Your task to perform on an android device: Go to accessibility settings Image 0: 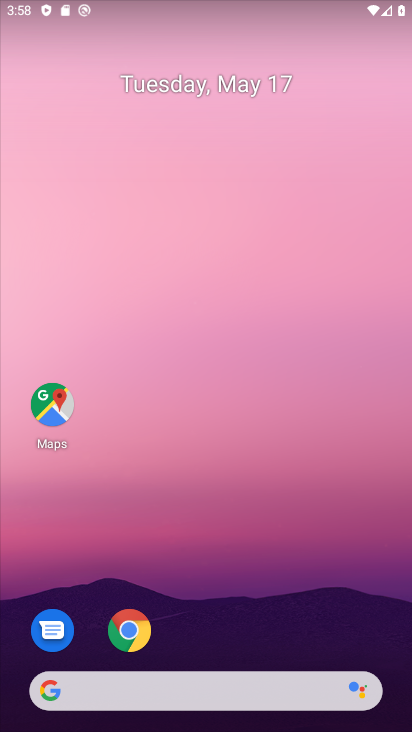
Step 0: drag from (173, 726) to (188, 220)
Your task to perform on an android device: Go to accessibility settings Image 1: 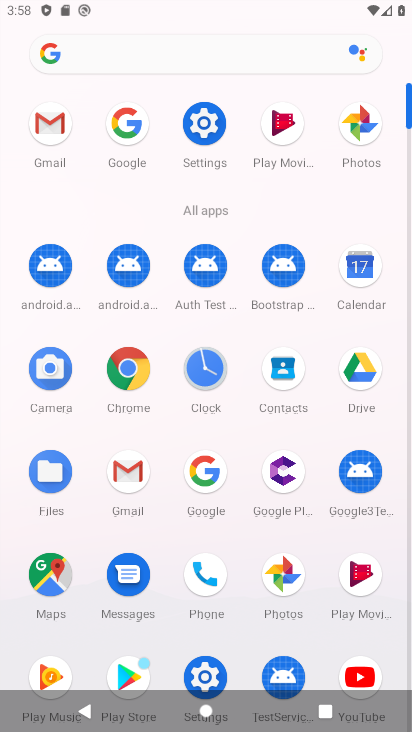
Step 1: click (203, 124)
Your task to perform on an android device: Go to accessibility settings Image 2: 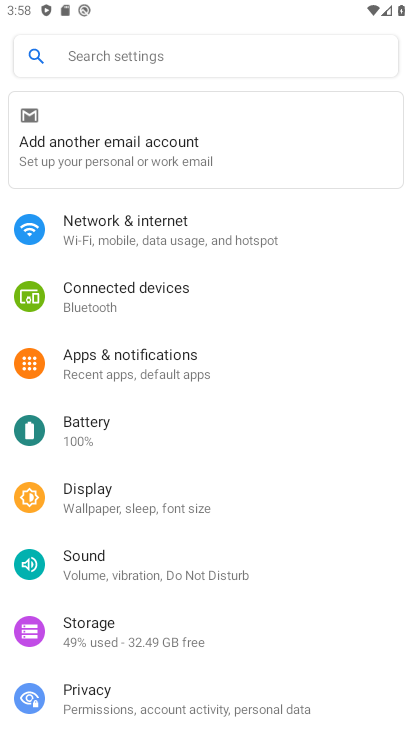
Step 2: drag from (198, 635) to (203, 222)
Your task to perform on an android device: Go to accessibility settings Image 3: 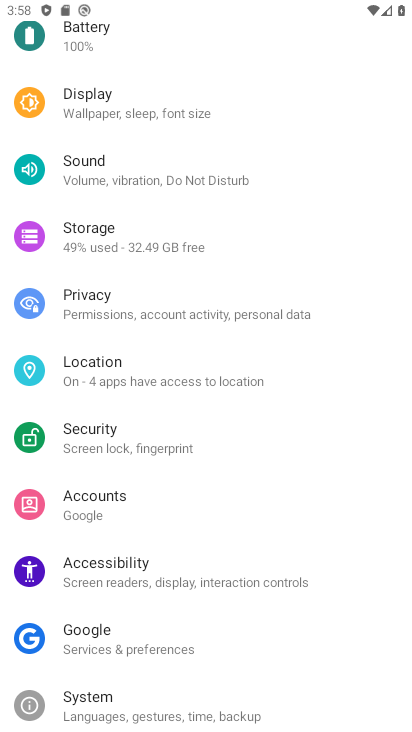
Step 3: click (124, 574)
Your task to perform on an android device: Go to accessibility settings Image 4: 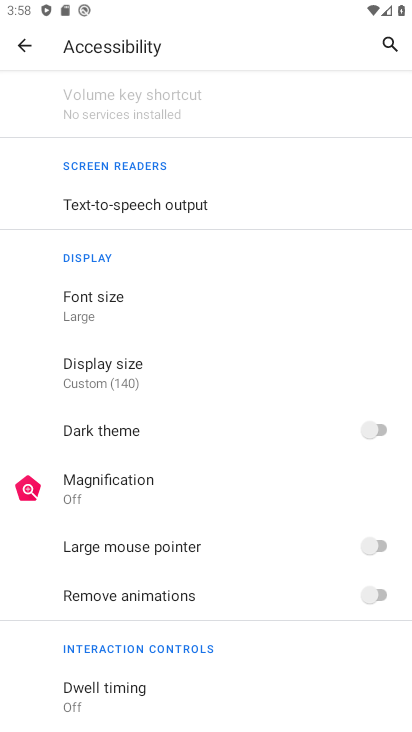
Step 4: task complete